Your task to perform on an android device: turn off javascript in the chrome app Image 0: 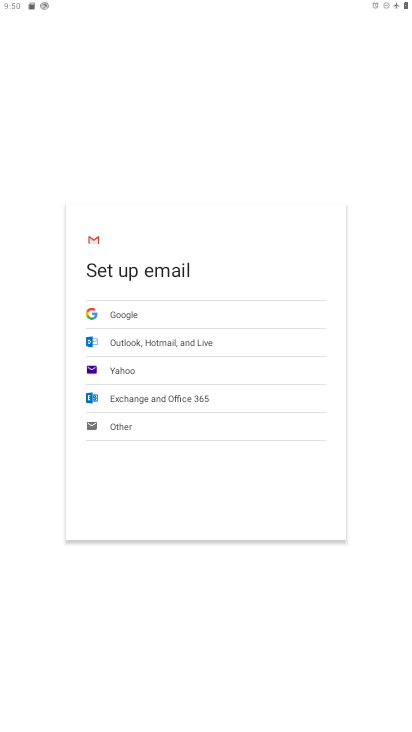
Step 0: press home button
Your task to perform on an android device: turn off javascript in the chrome app Image 1: 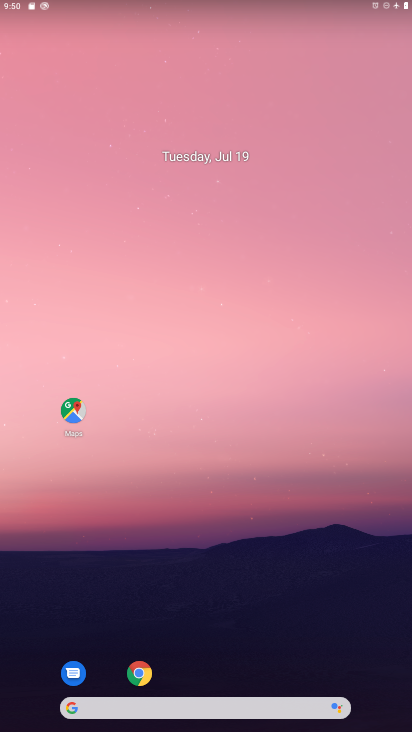
Step 1: click (139, 675)
Your task to perform on an android device: turn off javascript in the chrome app Image 2: 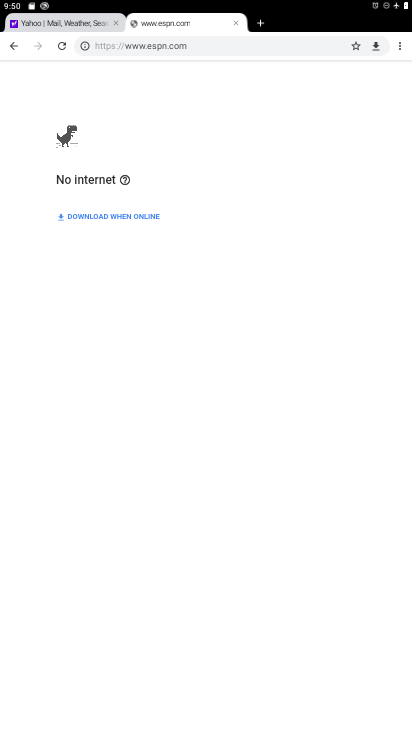
Step 2: click (399, 48)
Your task to perform on an android device: turn off javascript in the chrome app Image 3: 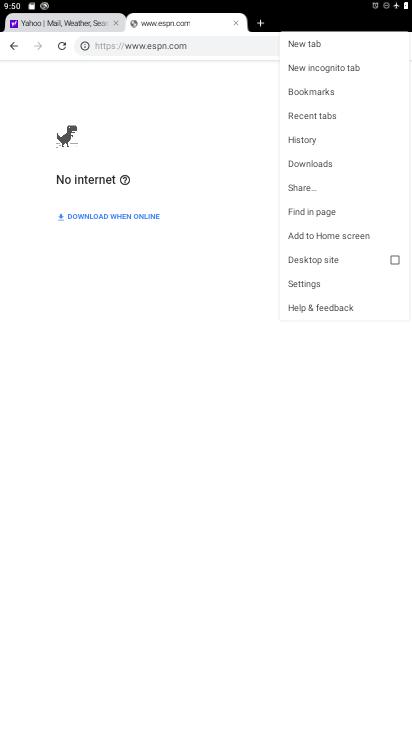
Step 3: click (301, 280)
Your task to perform on an android device: turn off javascript in the chrome app Image 4: 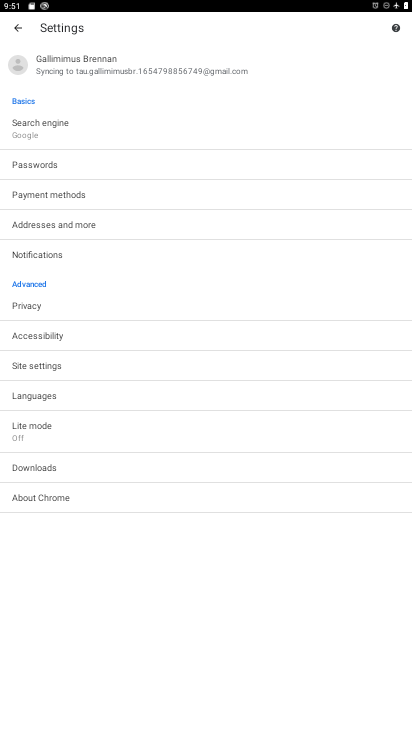
Step 4: click (26, 366)
Your task to perform on an android device: turn off javascript in the chrome app Image 5: 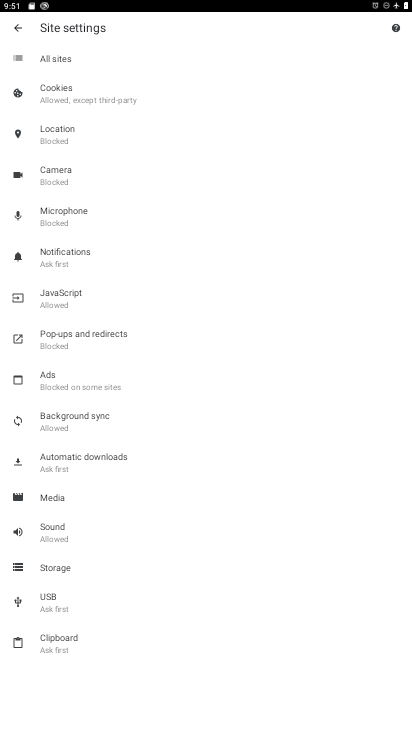
Step 5: click (59, 295)
Your task to perform on an android device: turn off javascript in the chrome app Image 6: 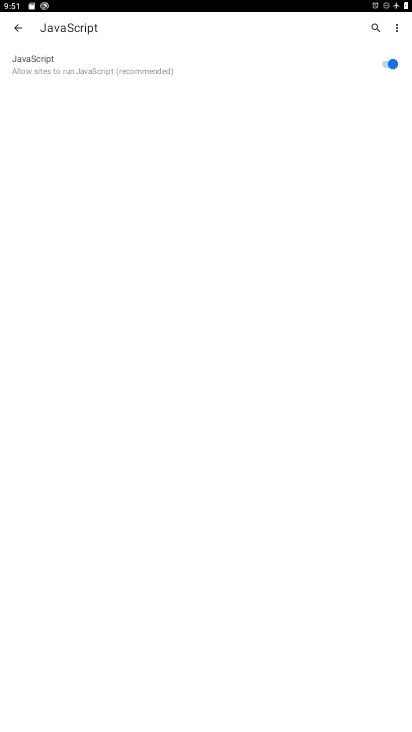
Step 6: click (381, 61)
Your task to perform on an android device: turn off javascript in the chrome app Image 7: 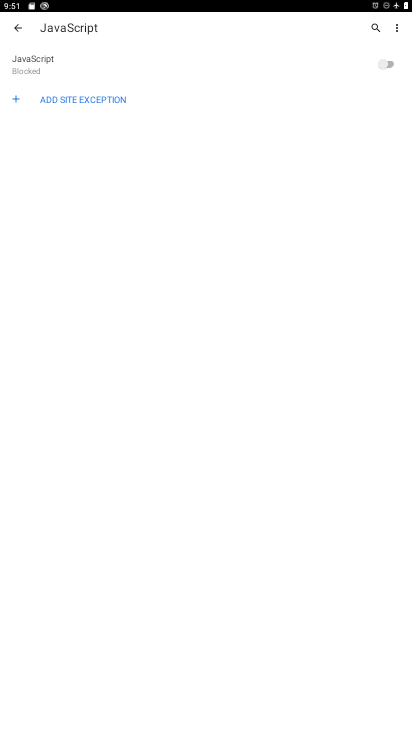
Step 7: task complete